Your task to perform on an android device: Go to Wikipedia Image 0: 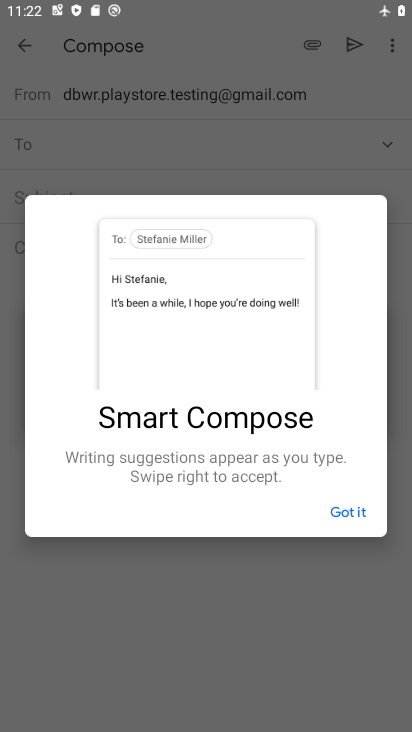
Step 0: press home button
Your task to perform on an android device: Go to Wikipedia Image 1: 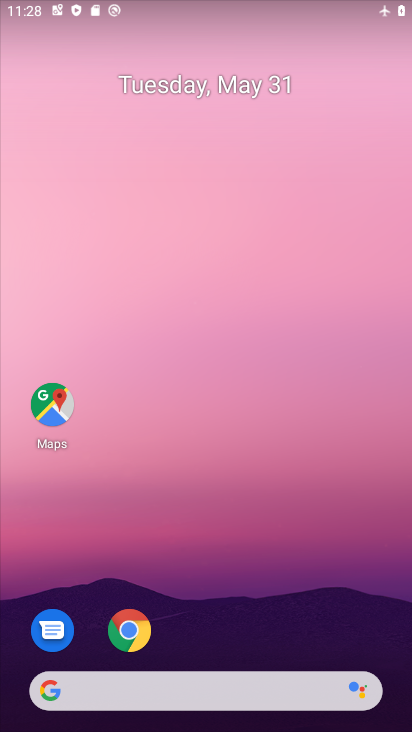
Step 1: drag from (187, 494) to (222, 144)
Your task to perform on an android device: Go to Wikipedia Image 2: 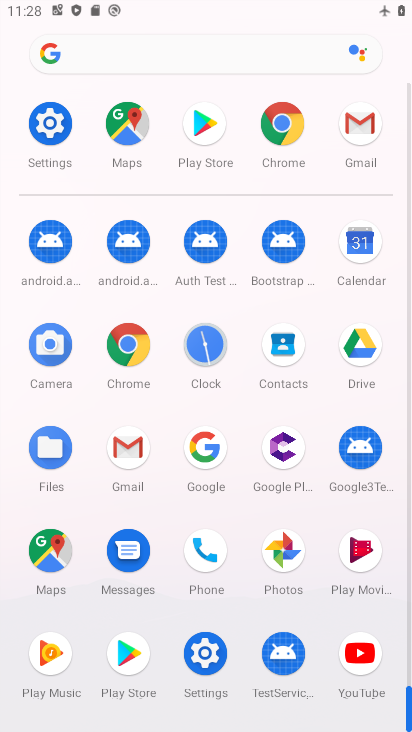
Step 2: click (145, 350)
Your task to perform on an android device: Go to Wikipedia Image 3: 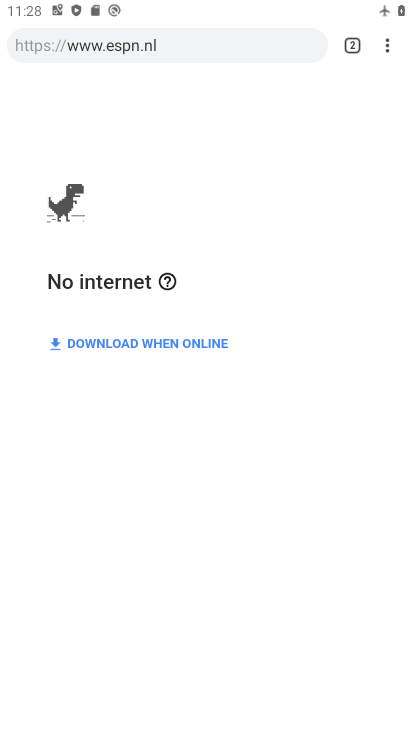
Step 3: click (266, 47)
Your task to perform on an android device: Go to Wikipedia Image 4: 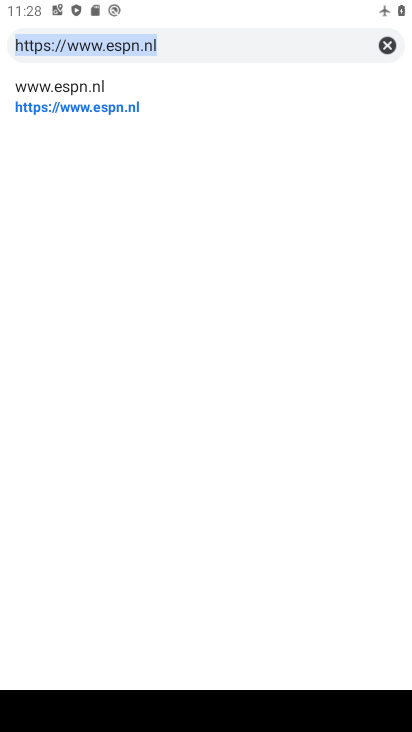
Step 4: type "wiki"
Your task to perform on an android device: Go to Wikipedia Image 5: 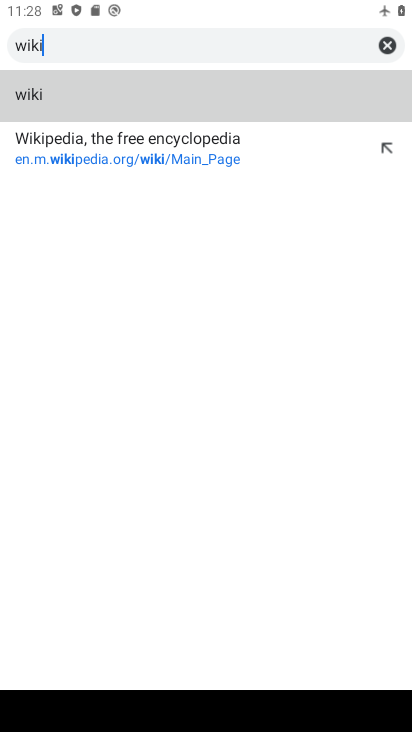
Step 5: click (207, 170)
Your task to perform on an android device: Go to Wikipedia Image 6: 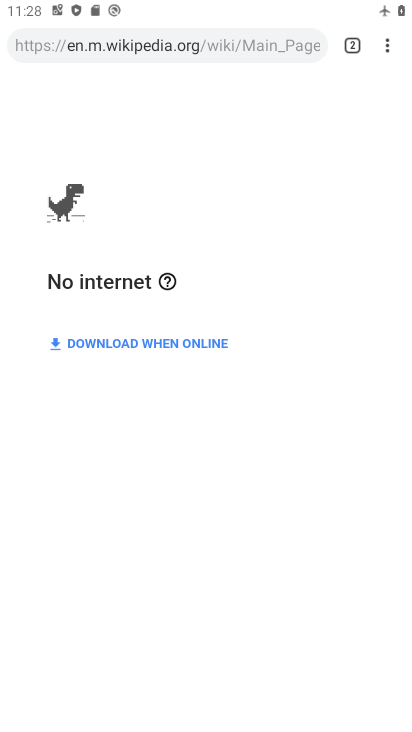
Step 6: task complete